Your task to perform on an android device: Turn on the flashlight Image 0: 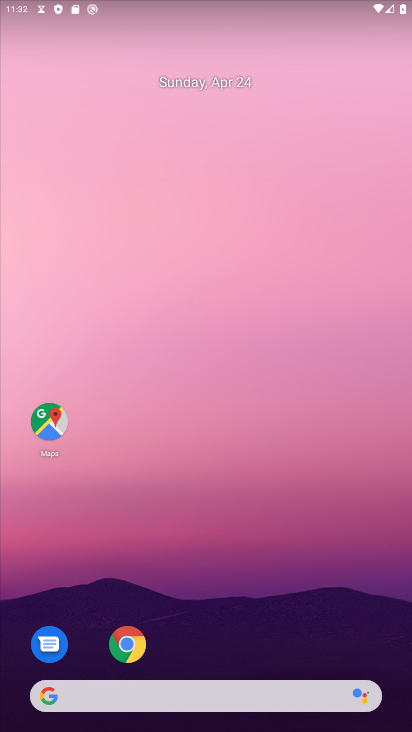
Step 0: drag from (193, 6) to (186, 521)
Your task to perform on an android device: Turn on the flashlight Image 1: 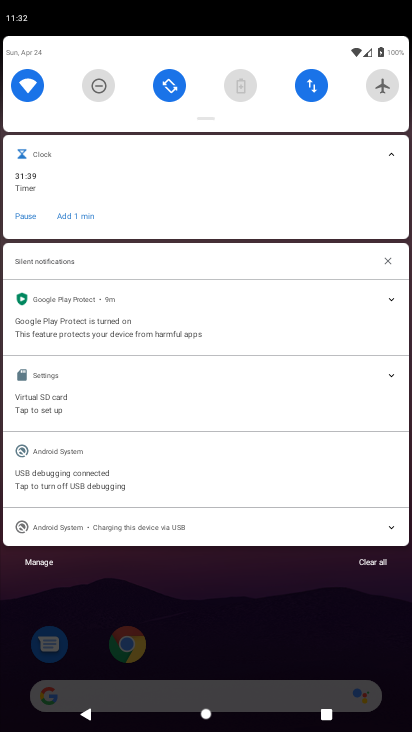
Step 1: task complete